Your task to perform on an android device: Open accessibility settings Image 0: 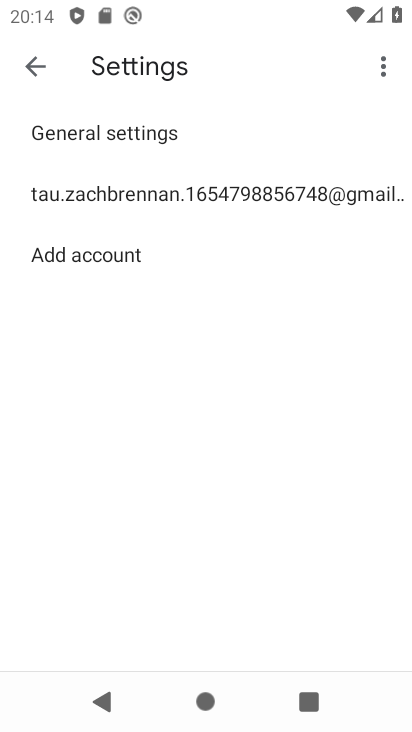
Step 0: press home button
Your task to perform on an android device: Open accessibility settings Image 1: 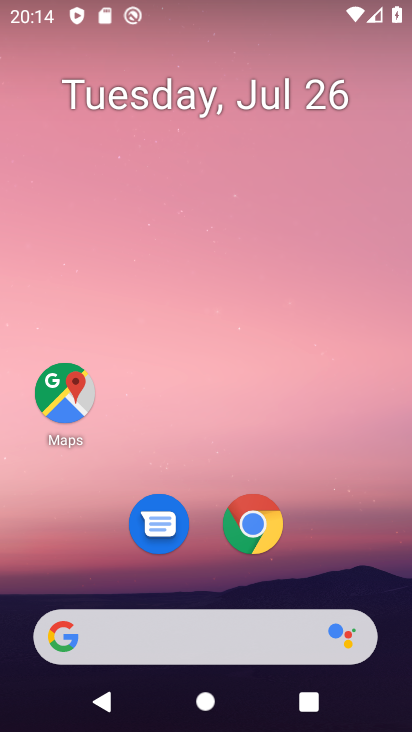
Step 1: drag from (196, 629) to (338, 74)
Your task to perform on an android device: Open accessibility settings Image 2: 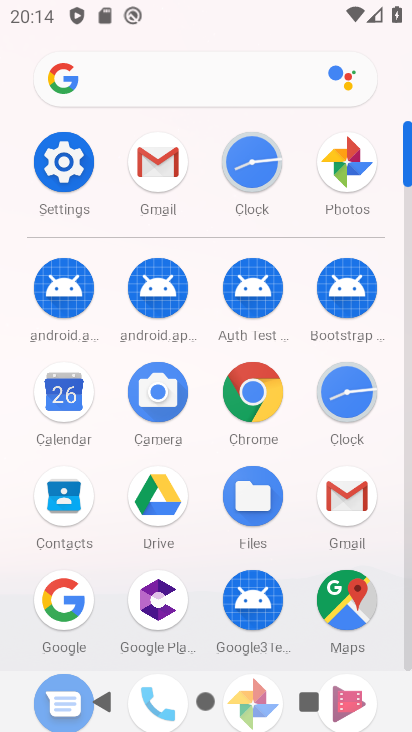
Step 2: click (70, 161)
Your task to perform on an android device: Open accessibility settings Image 3: 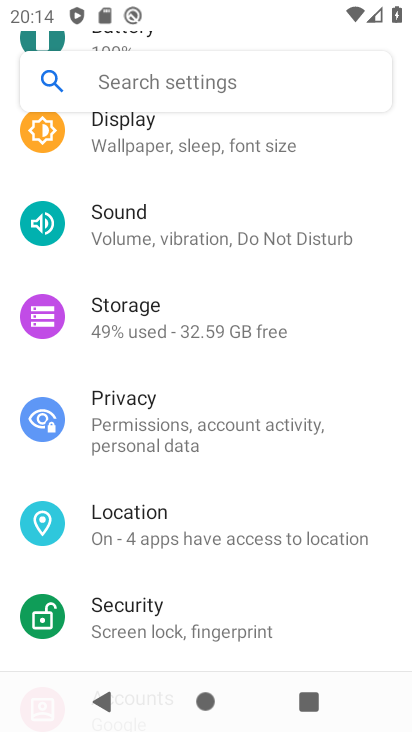
Step 3: drag from (248, 578) to (362, 99)
Your task to perform on an android device: Open accessibility settings Image 4: 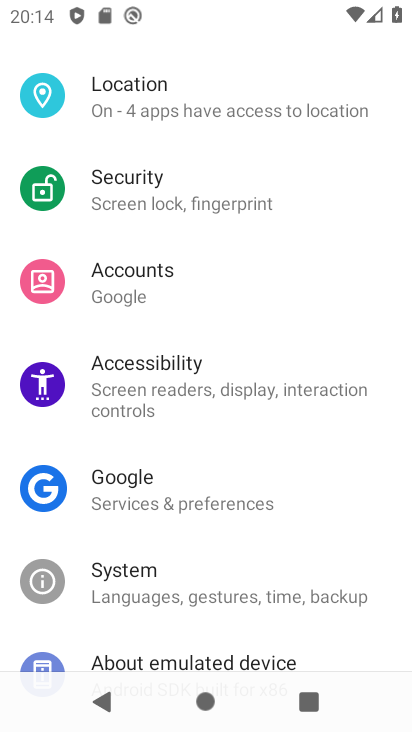
Step 4: click (148, 386)
Your task to perform on an android device: Open accessibility settings Image 5: 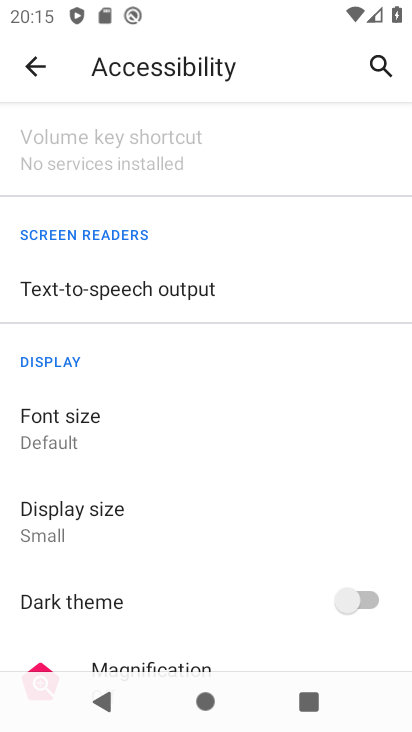
Step 5: task complete